Your task to perform on an android device: open sync settings in chrome Image 0: 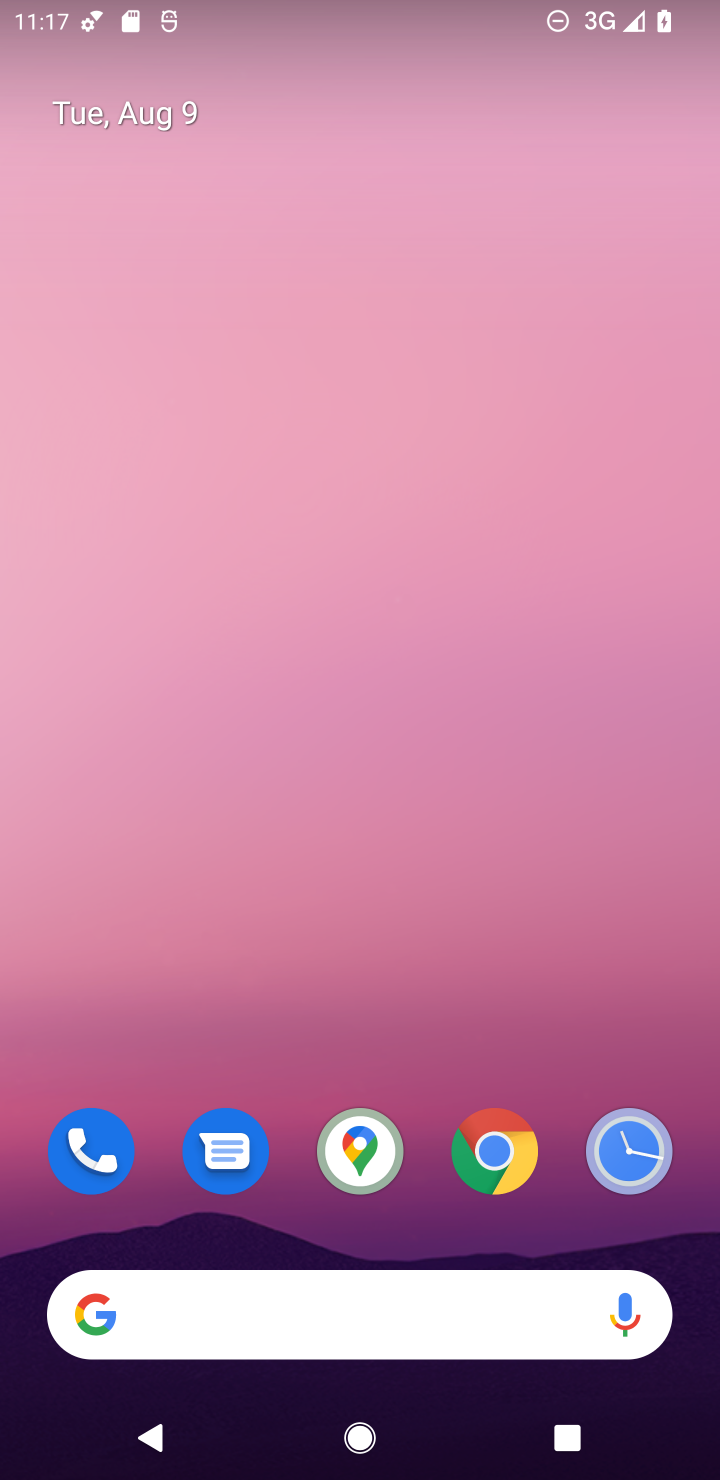
Step 0: click (500, 1167)
Your task to perform on an android device: open sync settings in chrome Image 1: 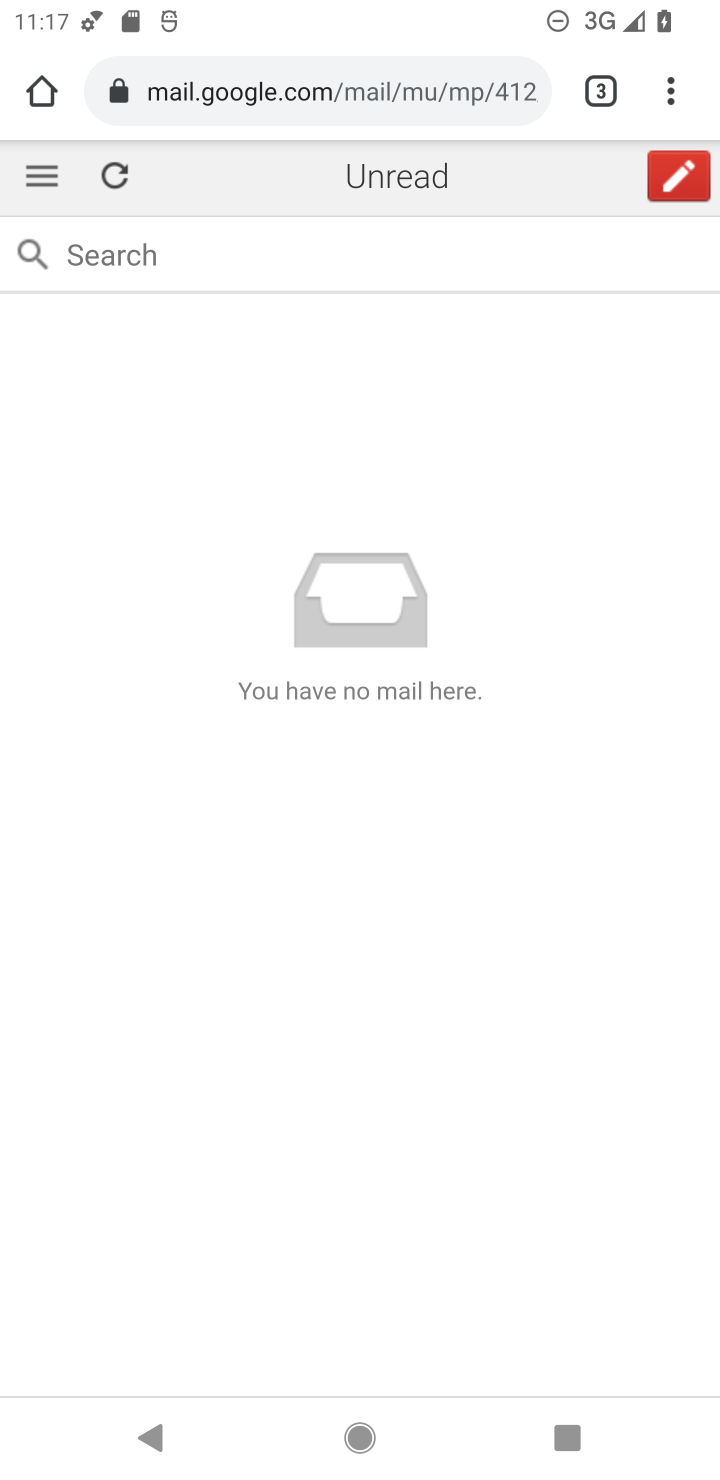
Step 1: click (666, 89)
Your task to perform on an android device: open sync settings in chrome Image 2: 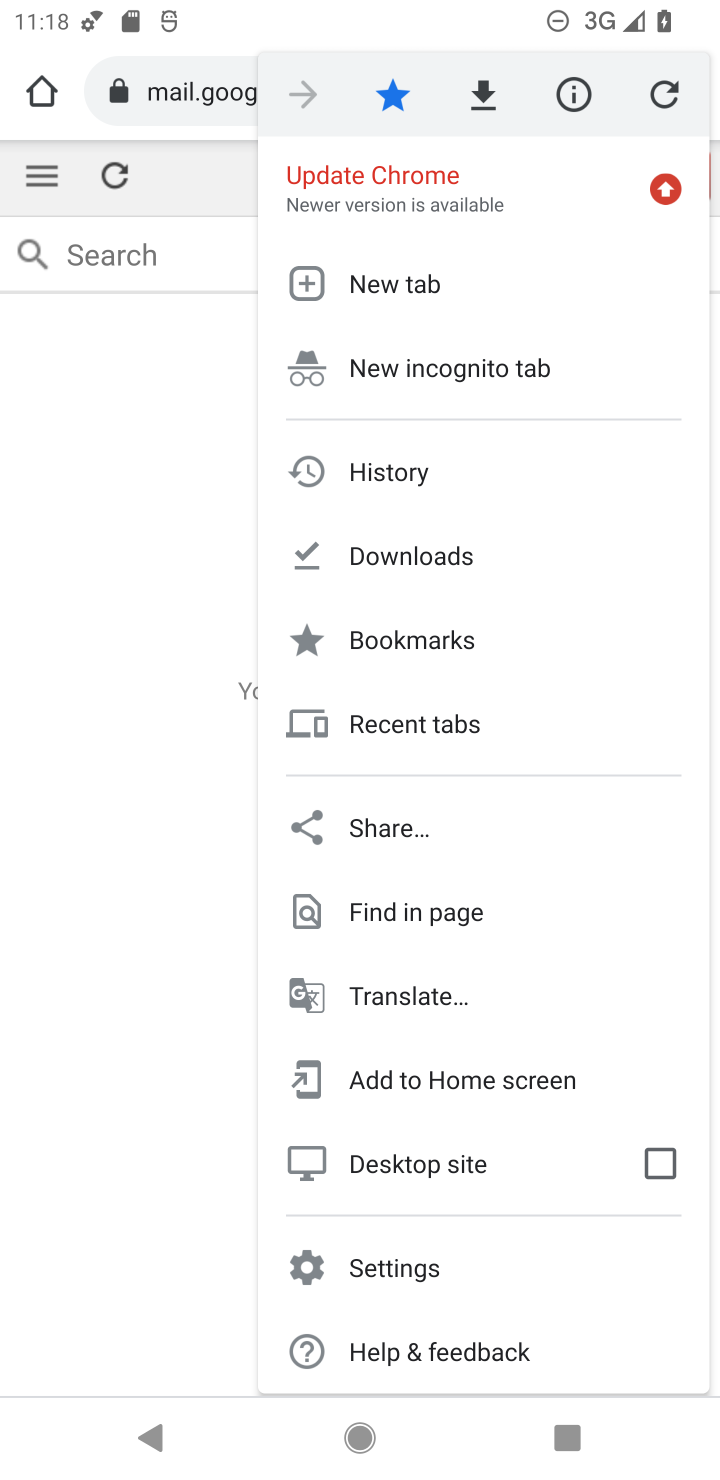
Step 2: click (404, 1261)
Your task to perform on an android device: open sync settings in chrome Image 3: 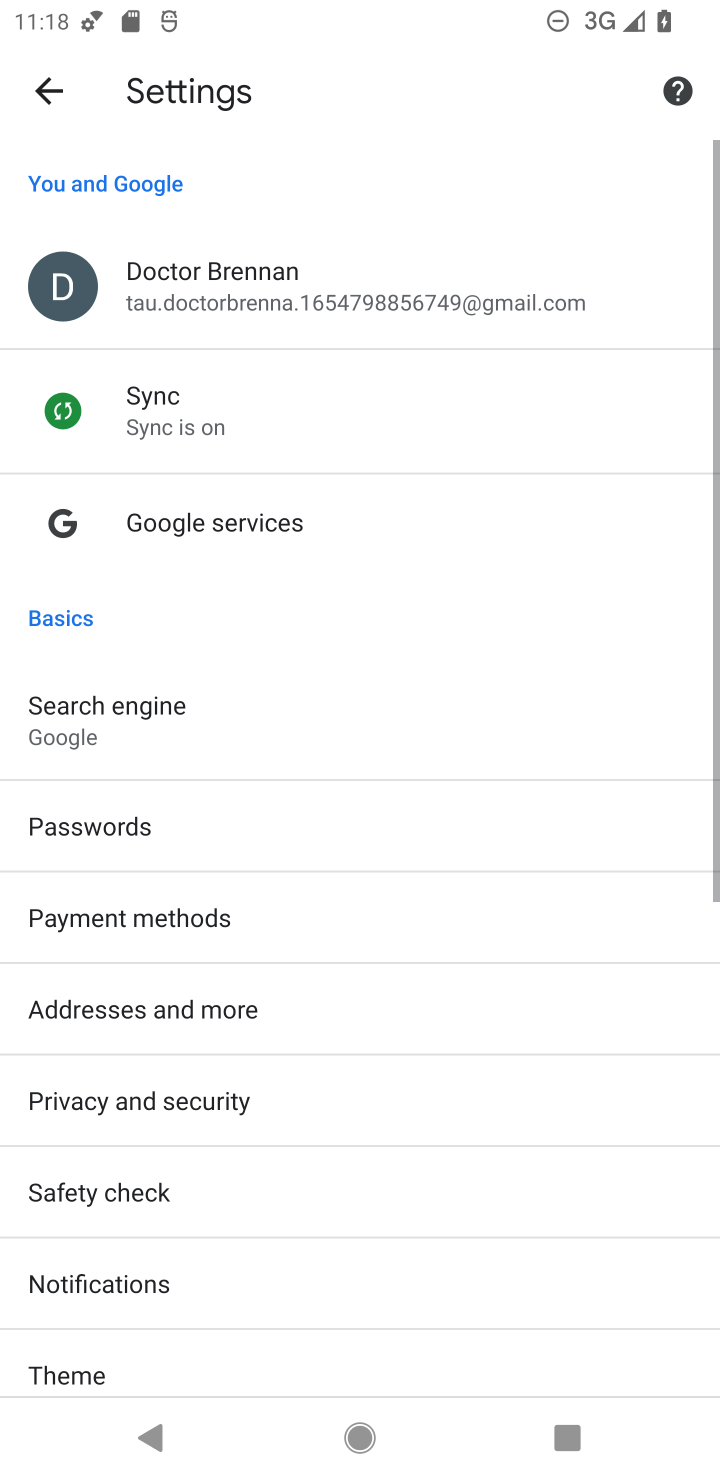
Step 3: click (285, 402)
Your task to perform on an android device: open sync settings in chrome Image 4: 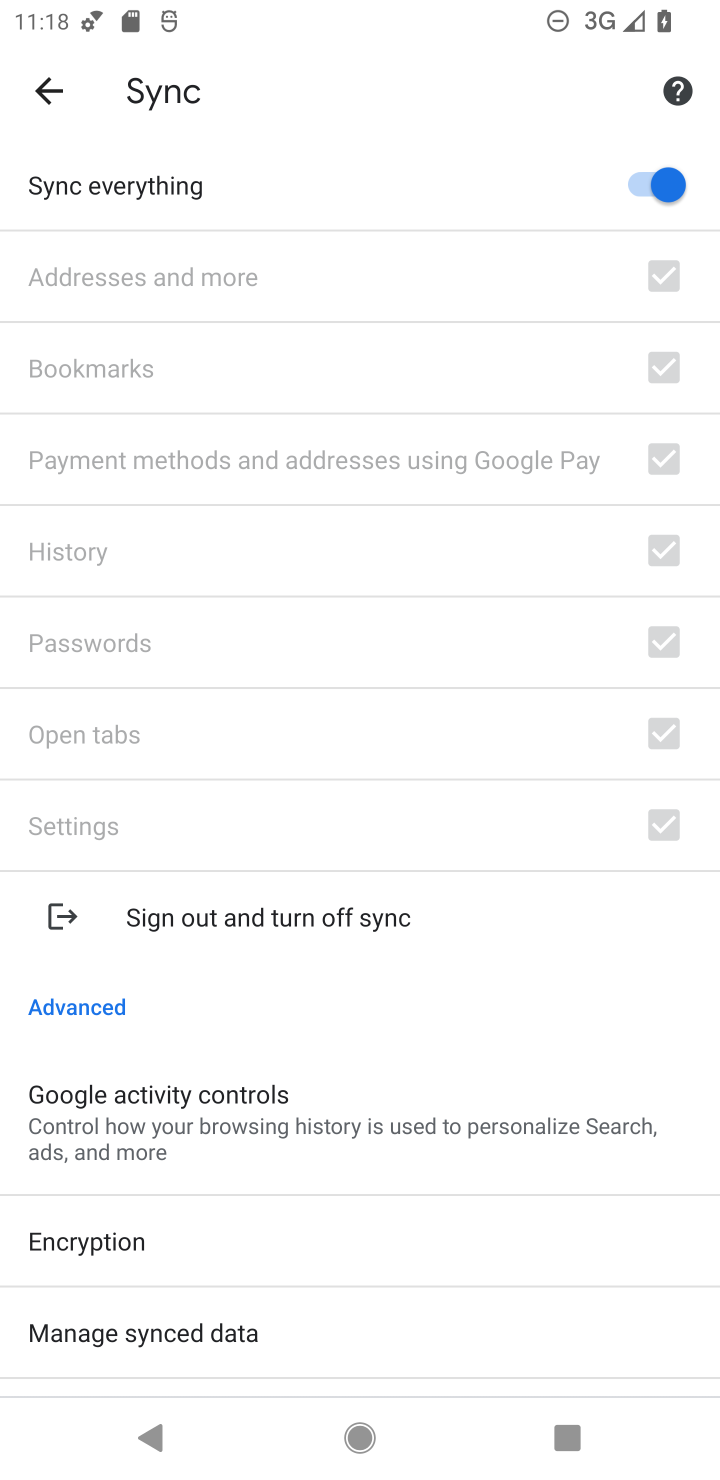
Step 4: task complete